Your task to perform on an android device: delete the emails in spam in the gmail app Image 0: 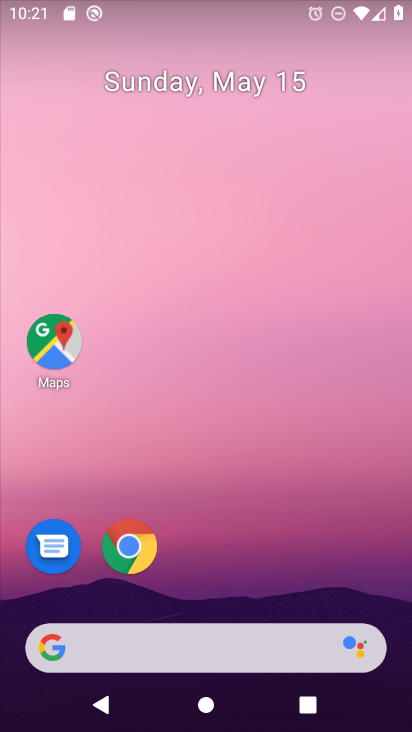
Step 0: drag from (260, 569) to (299, 166)
Your task to perform on an android device: delete the emails in spam in the gmail app Image 1: 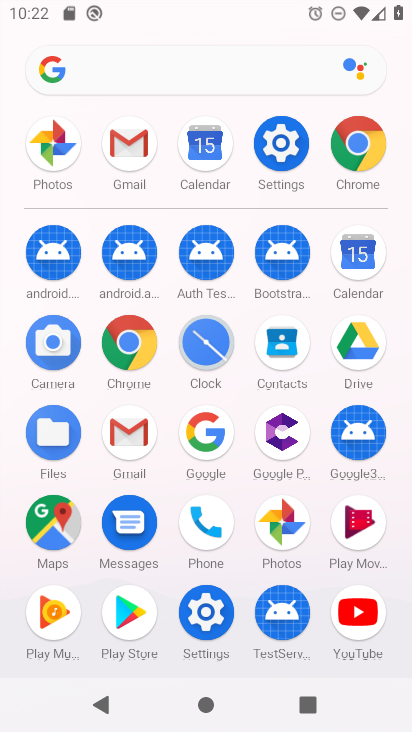
Step 1: click (132, 149)
Your task to perform on an android device: delete the emails in spam in the gmail app Image 2: 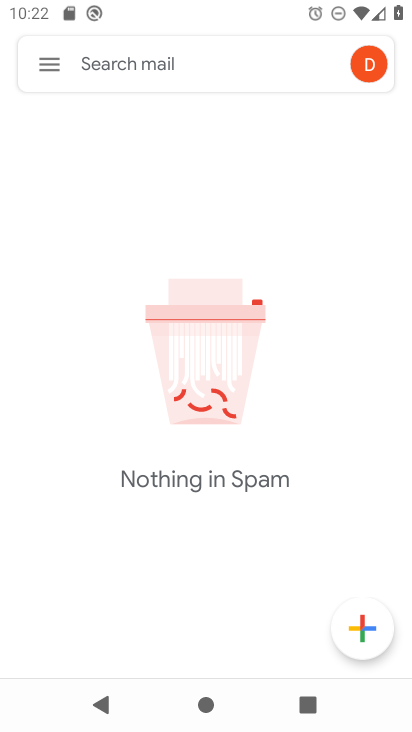
Step 2: click (55, 69)
Your task to perform on an android device: delete the emails in spam in the gmail app Image 3: 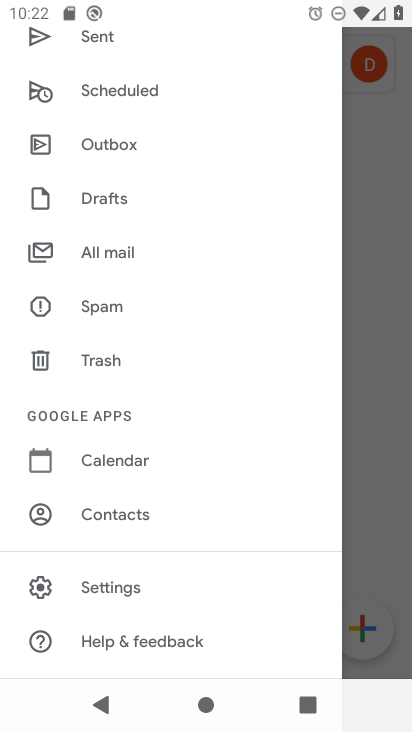
Step 3: click (118, 312)
Your task to perform on an android device: delete the emails in spam in the gmail app Image 4: 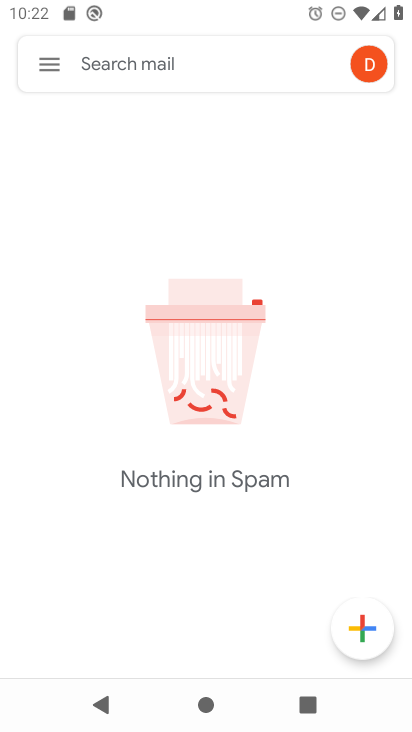
Step 4: task complete